Your task to perform on an android device: turn on javascript in the chrome app Image 0: 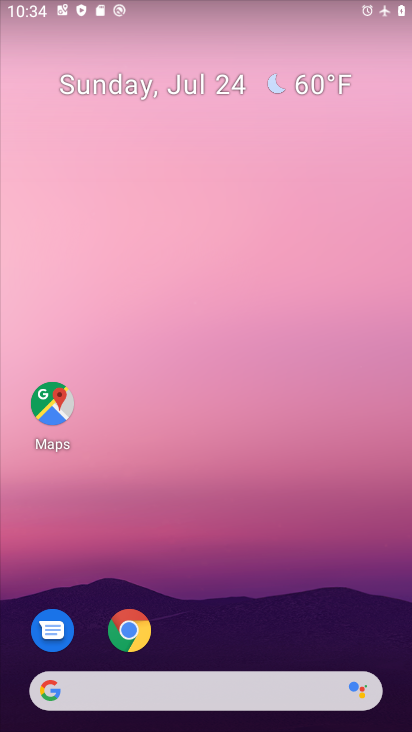
Step 0: drag from (210, 649) to (235, 1)
Your task to perform on an android device: turn on javascript in the chrome app Image 1: 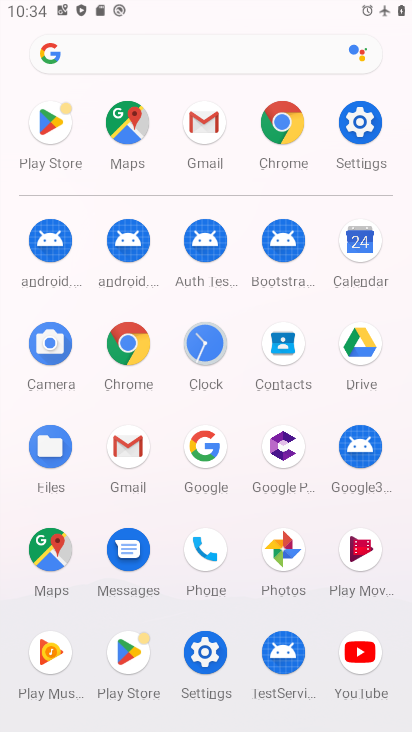
Step 1: click (133, 345)
Your task to perform on an android device: turn on javascript in the chrome app Image 2: 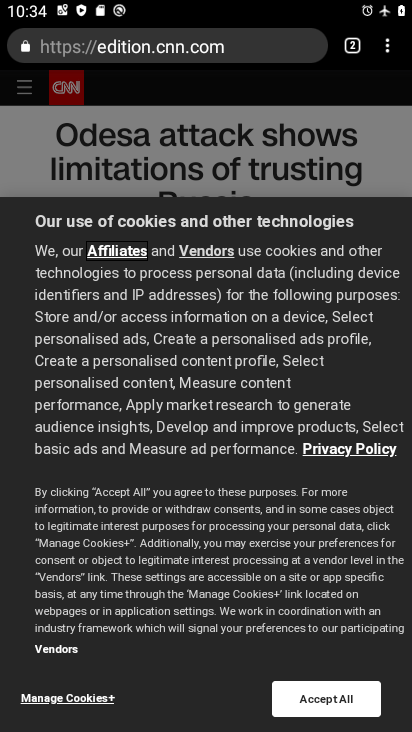
Step 2: click (387, 37)
Your task to perform on an android device: turn on javascript in the chrome app Image 3: 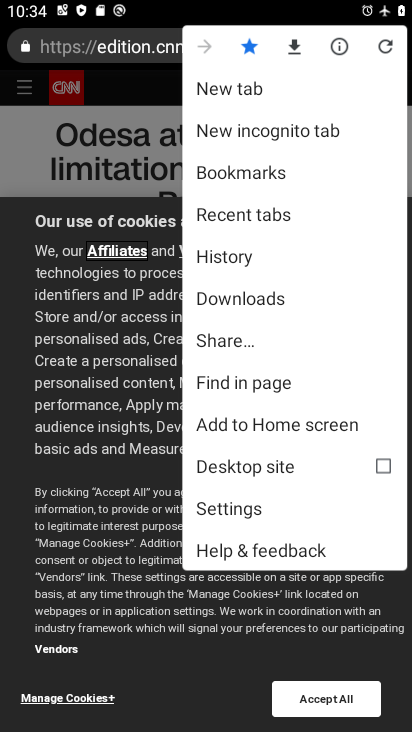
Step 3: click (229, 516)
Your task to perform on an android device: turn on javascript in the chrome app Image 4: 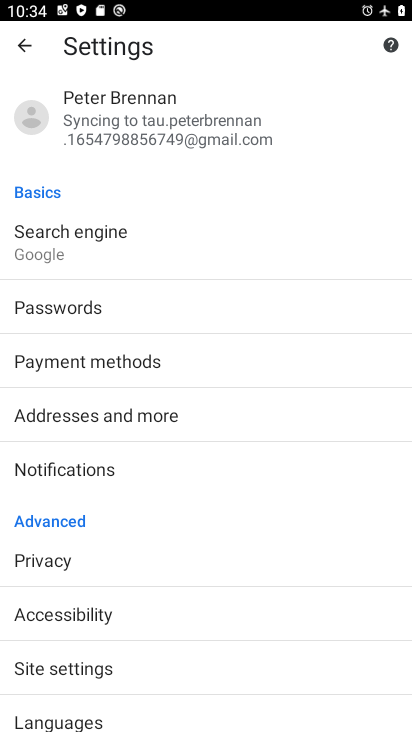
Step 4: drag from (82, 655) to (94, 504)
Your task to perform on an android device: turn on javascript in the chrome app Image 5: 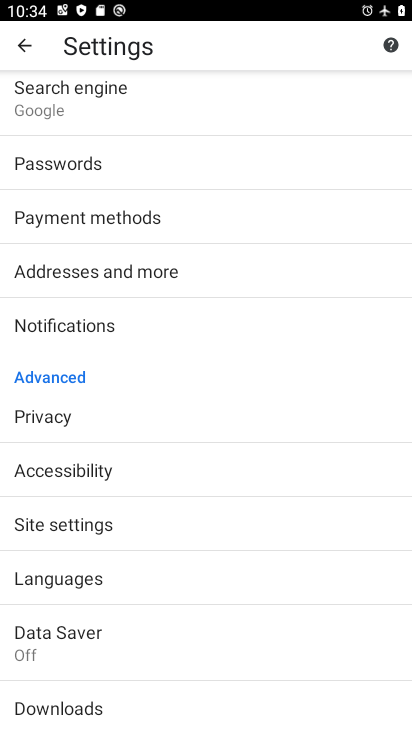
Step 5: click (65, 522)
Your task to perform on an android device: turn on javascript in the chrome app Image 6: 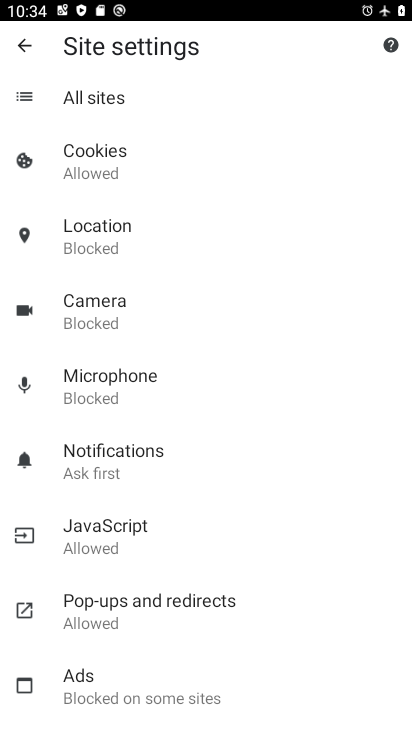
Step 6: click (124, 538)
Your task to perform on an android device: turn on javascript in the chrome app Image 7: 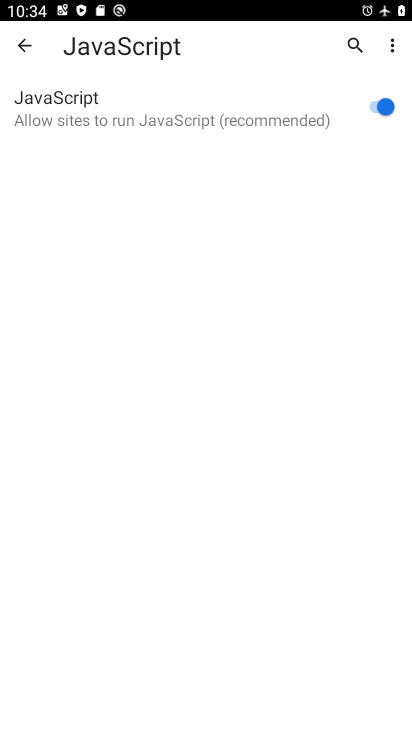
Step 7: task complete